Your task to perform on an android device: Search for pizza restaurants on Maps Image 0: 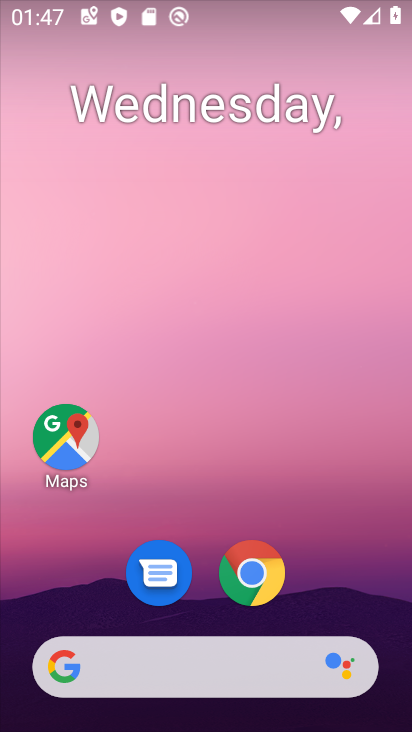
Step 0: click (64, 437)
Your task to perform on an android device: Search for pizza restaurants on Maps Image 1: 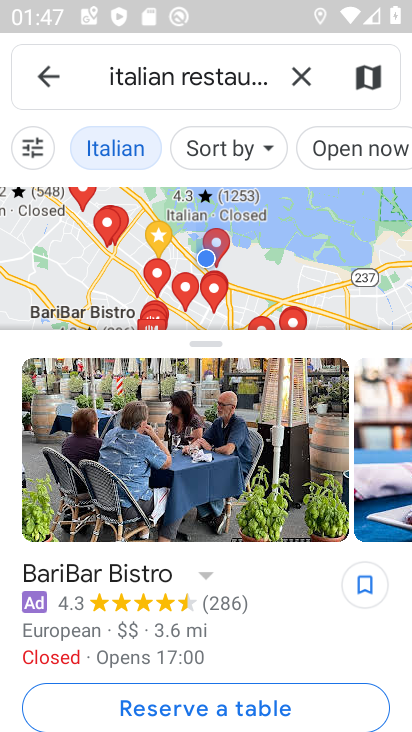
Step 1: click (301, 76)
Your task to perform on an android device: Search for pizza restaurants on Maps Image 2: 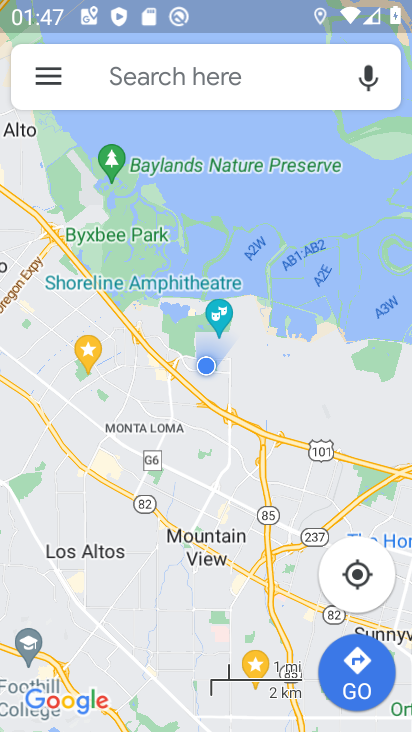
Step 2: click (252, 89)
Your task to perform on an android device: Search for pizza restaurants on Maps Image 3: 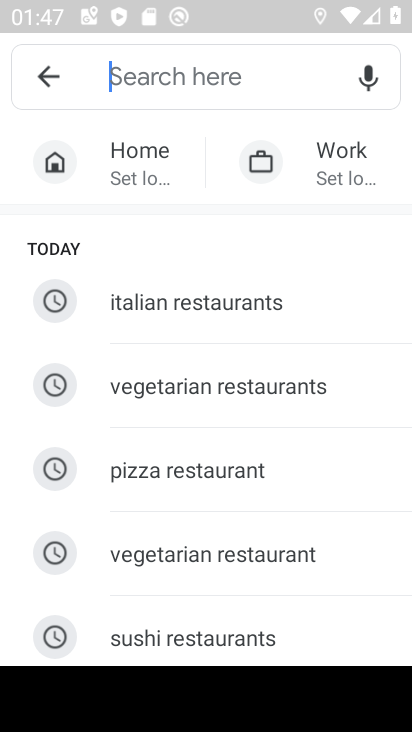
Step 3: type "pizza restaurants"
Your task to perform on an android device: Search for pizza restaurants on Maps Image 4: 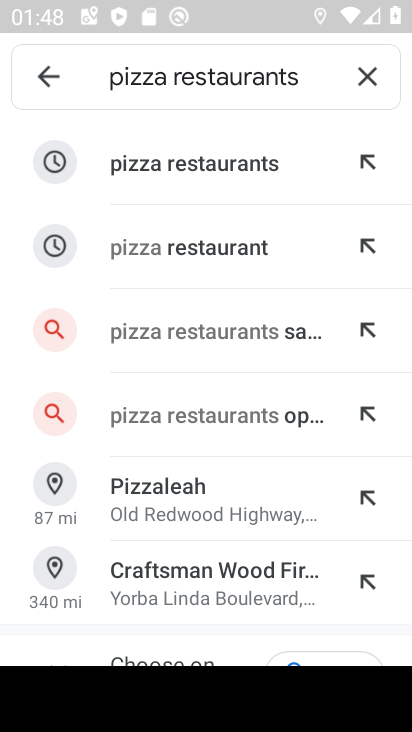
Step 4: click (194, 174)
Your task to perform on an android device: Search for pizza restaurants on Maps Image 5: 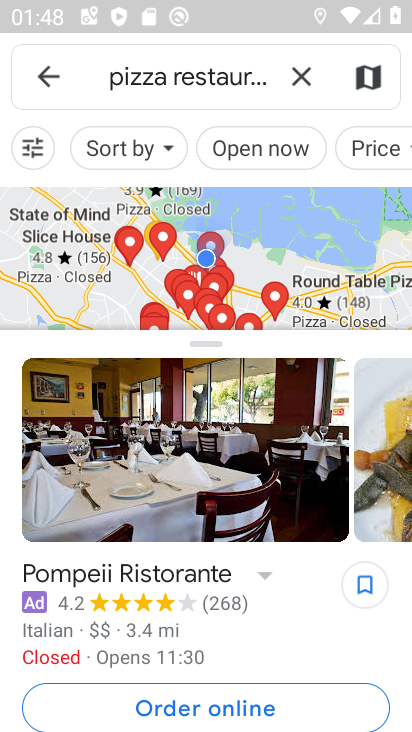
Step 5: task complete